Your task to perform on an android device: Open settings on Google Maps Image 0: 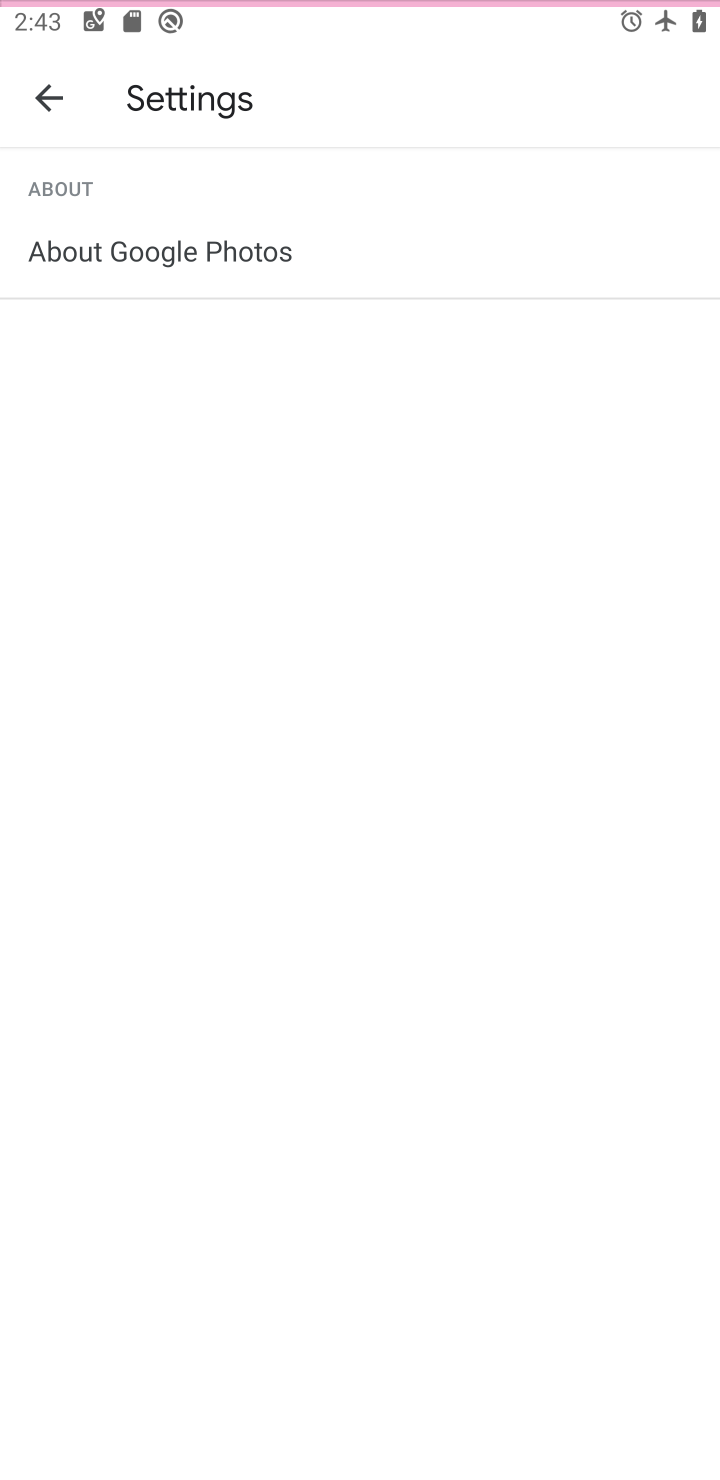
Step 0: press home button
Your task to perform on an android device: Open settings on Google Maps Image 1: 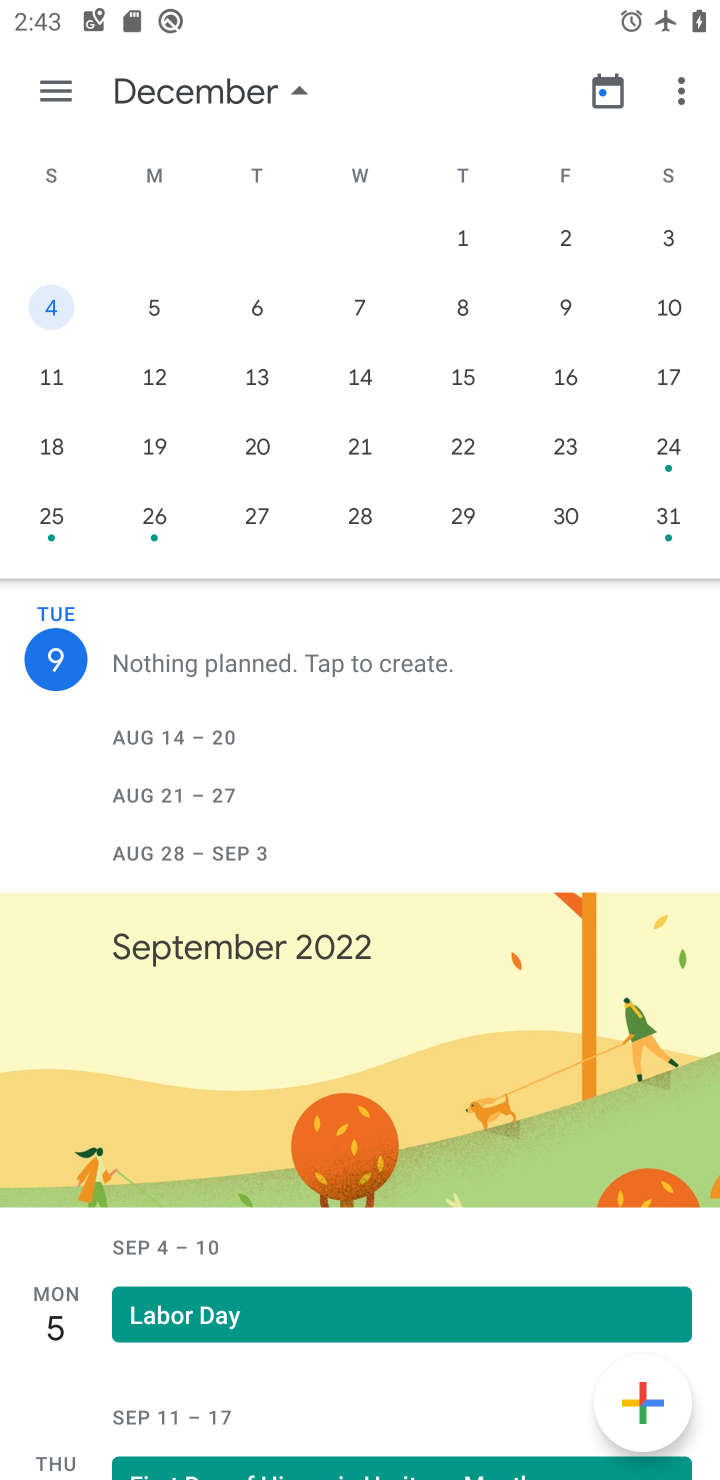
Step 1: task complete